Your task to perform on an android device: turn notification dots off Image 0: 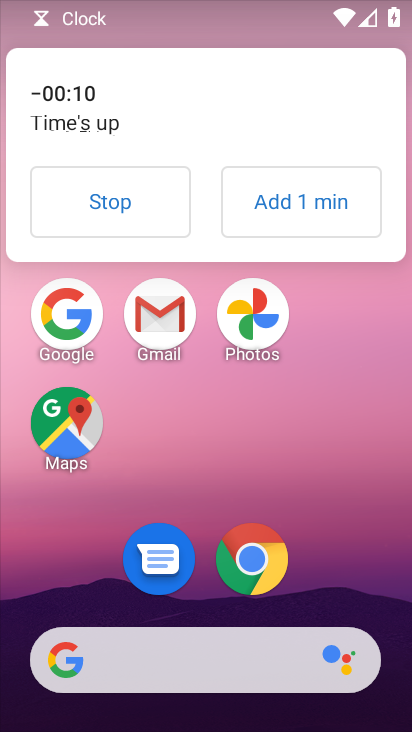
Step 0: click (105, 187)
Your task to perform on an android device: turn notification dots off Image 1: 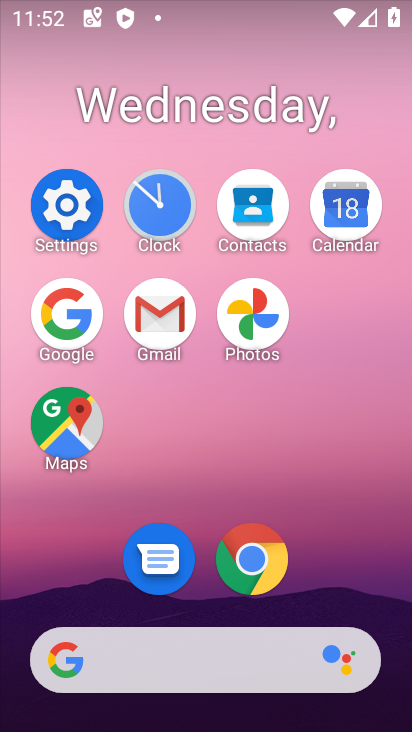
Step 1: click (92, 223)
Your task to perform on an android device: turn notification dots off Image 2: 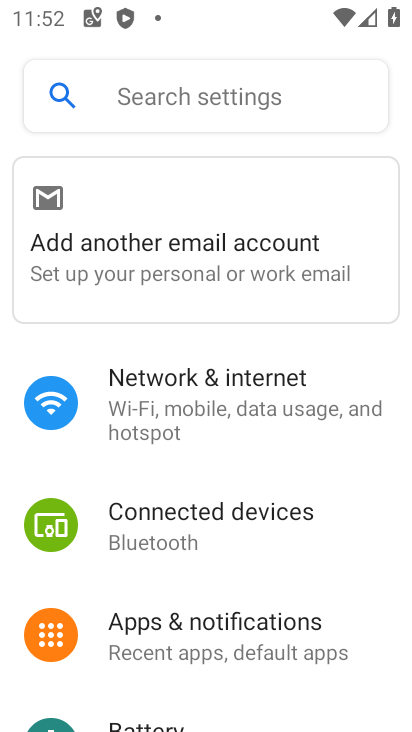
Step 2: click (274, 620)
Your task to perform on an android device: turn notification dots off Image 3: 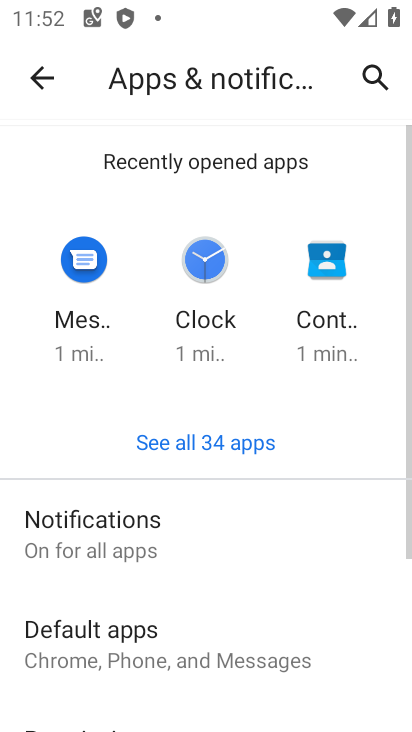
Step 3: click (271, 546)
Your task to perform on an android device: turn notification dots off Image 4: 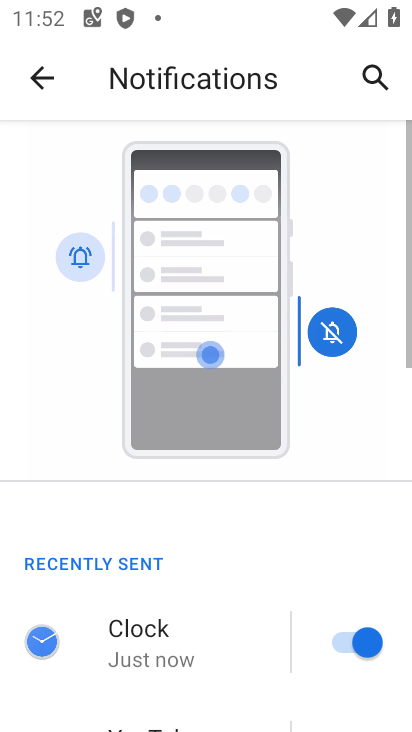
Step 4: drag from (280, 595) to (210, 251)
Your task to perform on an android device: turn notification dots off Image 5: 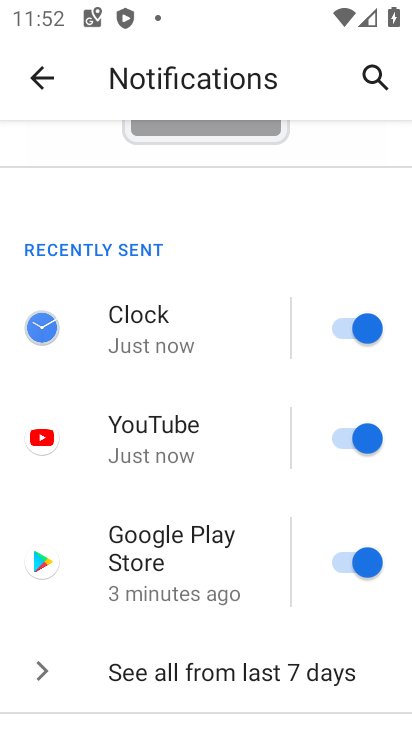
Step 5: drag from (277, 553) to (274, 268)
Your task to perform on an android device: turn notification dots off Image 6: 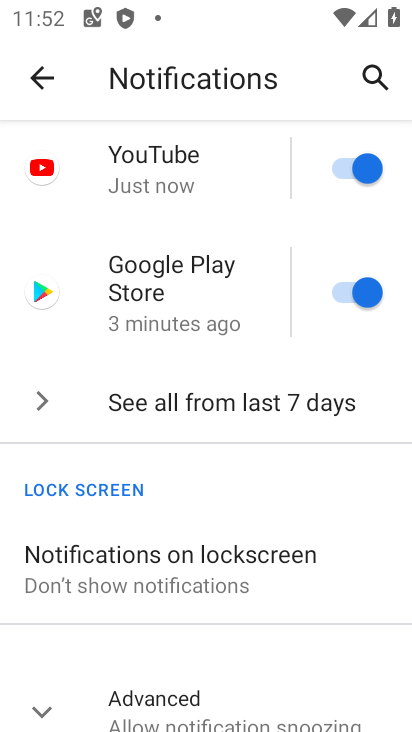
Step 6: drag from (252, 648) to (249, 319)
Your task to perform on an android device: turn notification dots off Image 7: 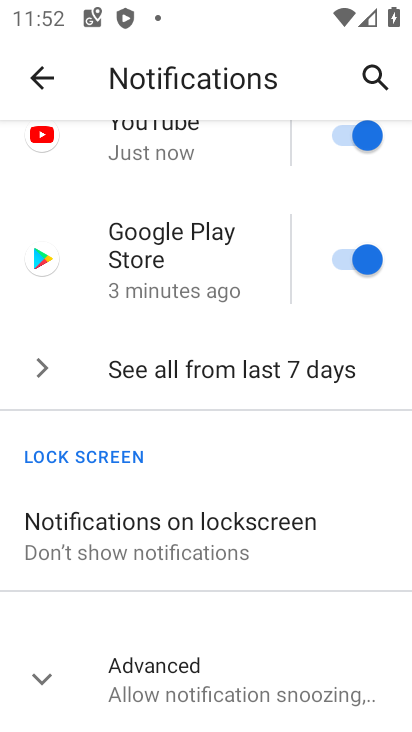
Step 7: click (202, 692)
Your task to perform on an android device: turn notification dots off Image 8: 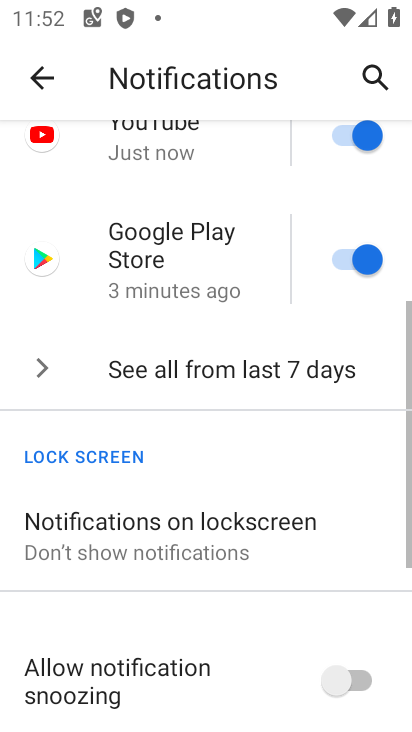
Step 8: task complete